Your task to perform on an android device: toggle javascript in the chrome app Image 0: 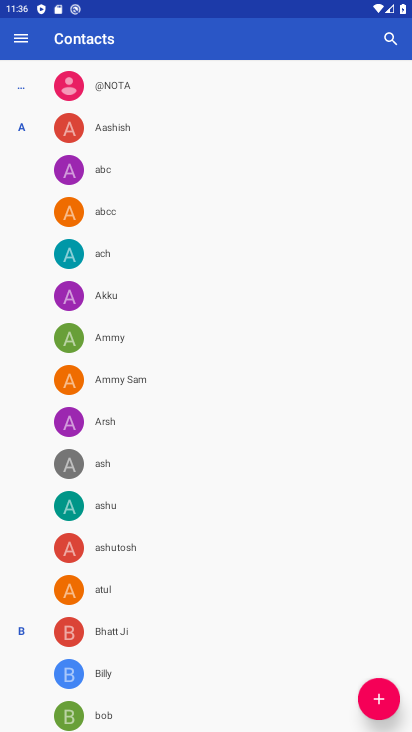
Step 0: press home button
Your task to perform on an android device: toggle javascript in the chrome app Image 1: 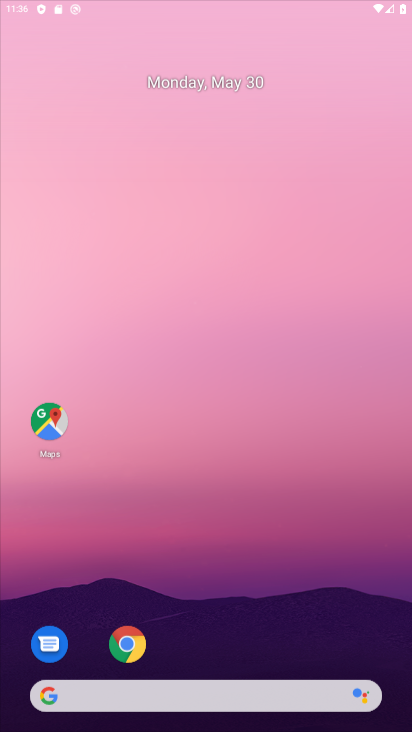
Step 1: drag from (177, 598) to (236, 155)
Your task to perform on an android device: toggle javascript in the chrome app Image 2: 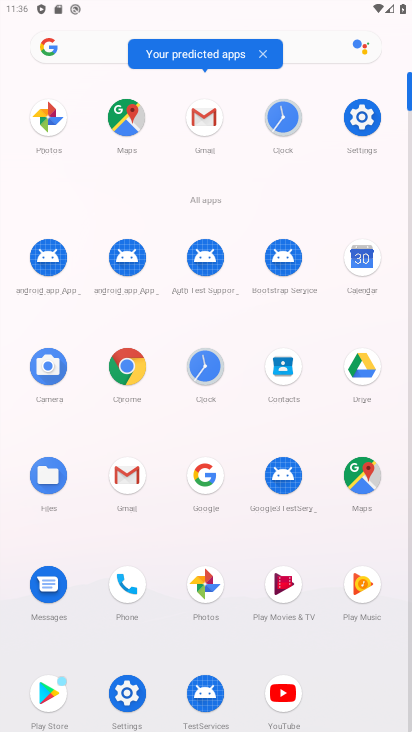
Step 2: drag from (231, 633) to (293, 218)
Your task to perform on an android device: toggle javascript in the chrome app Image 3: 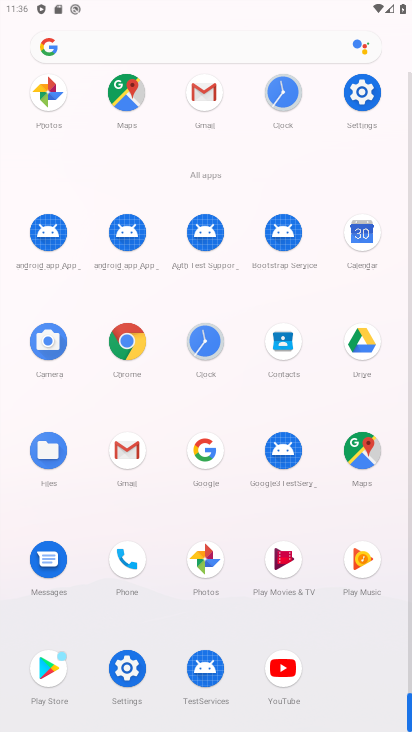
Step 3: click (130, 329)
Your task to perform on an android device: toggle javascript in the chrome app Image 4: 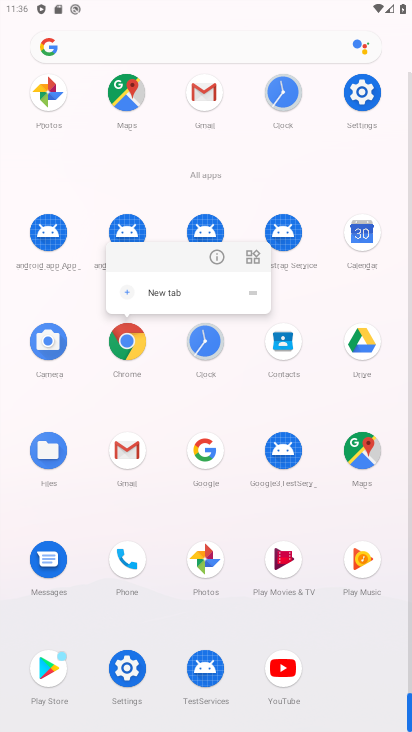
Step 4: click (216, 253)
Your task to perform on an android device: toggle javascript in the chrome app Image 5: 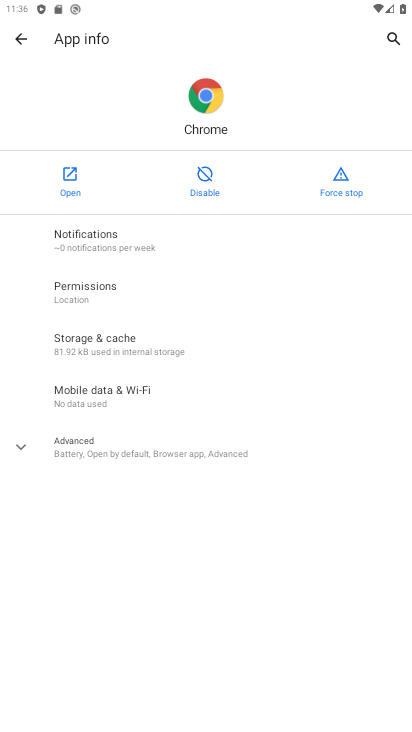
Step 5: click (68, 172)
Your task to perform on an android device: toggle javascript in the chrome app Image 6: 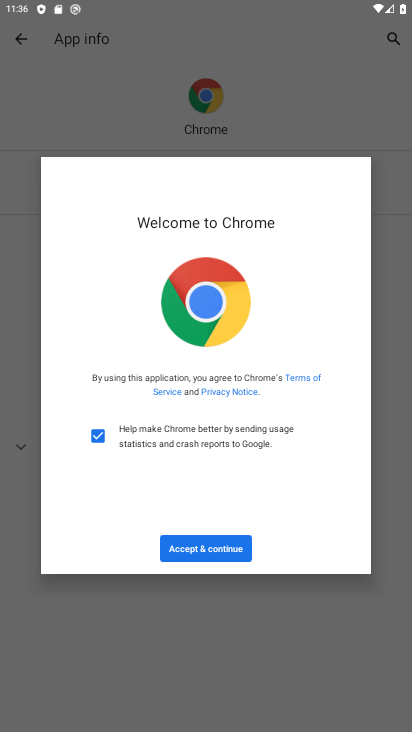
Step 6: click (197, 543)
Your task to perform on an android device: toggle javascript in the chrome app Image 7: 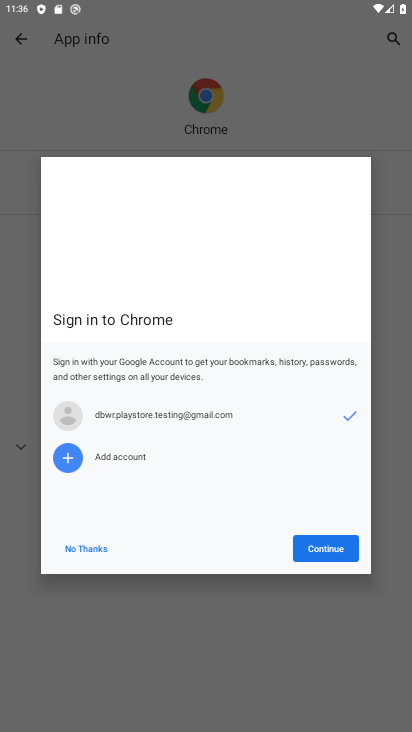
Step 7: click (323, 555)
Your task to perform on an android device: toggle javascript in the chrome app Image 8: 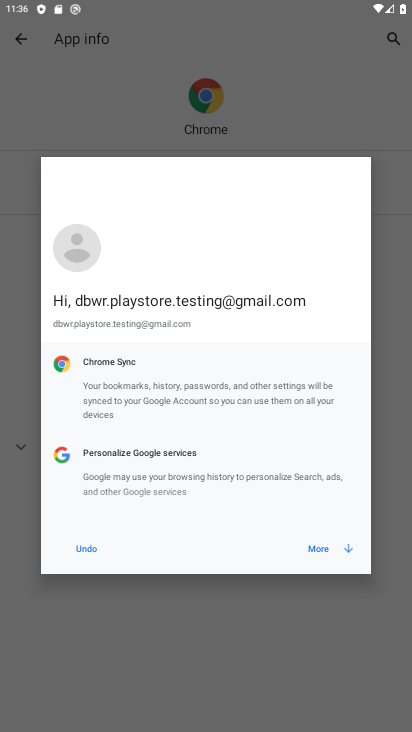
Step 8: click (319, 552)
Your task to perform on an android device: toggle javascript in the chrome app Image 9: 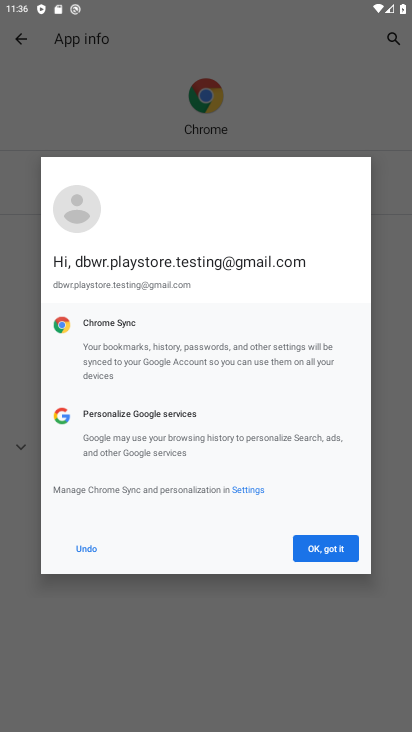
Step 9: click (319, 552)
Your task to perform on an android device: toggle javascript in the chrome app Image 10: 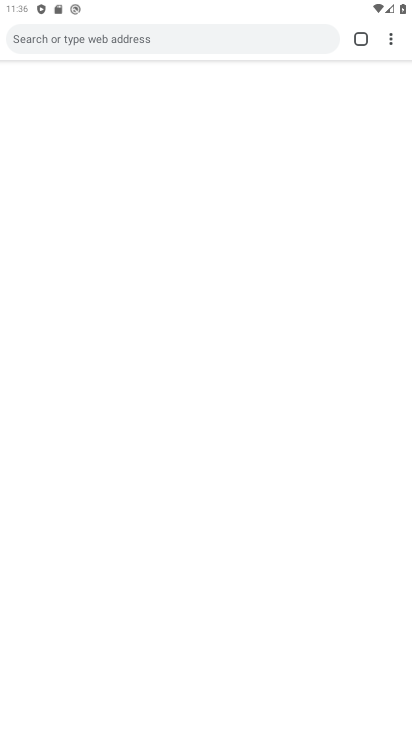
Step 10: drag from (258, 505) to (300, 290)
Your task to perform on an android device: toggle javascript in the chrome app Image 11: 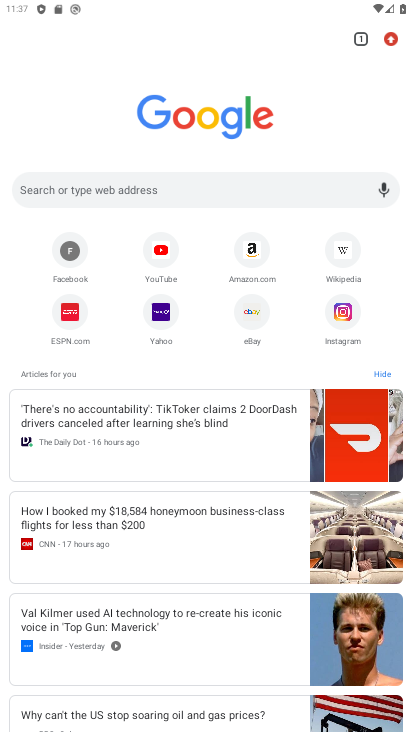
Step 11: click (385, 47)
Your task to perform on an android device: toggle javascript in the chrome app Image 12: 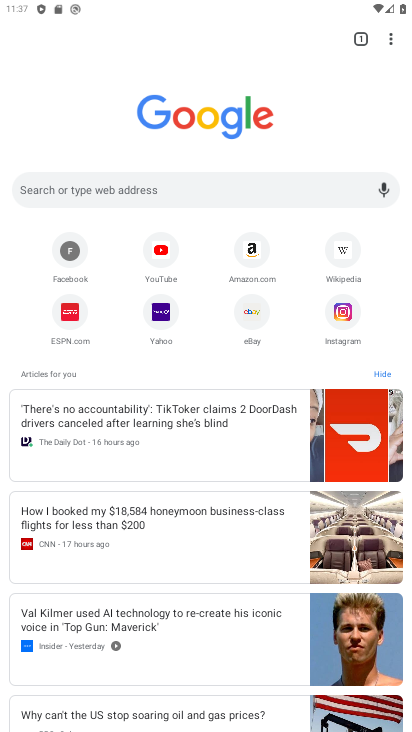
Step 12: drag from (403, 34) to (282, 368)
Your task to perform on an android device: toggle javascript in the chrome app Image 13: 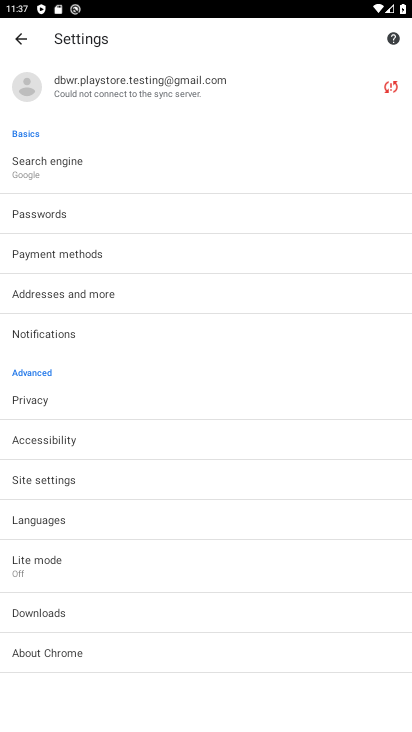
Step 13: drag from (186, 637) to (307, 179)
Your task to perform on an android device: toggle javascript in the chrome app Image 14: 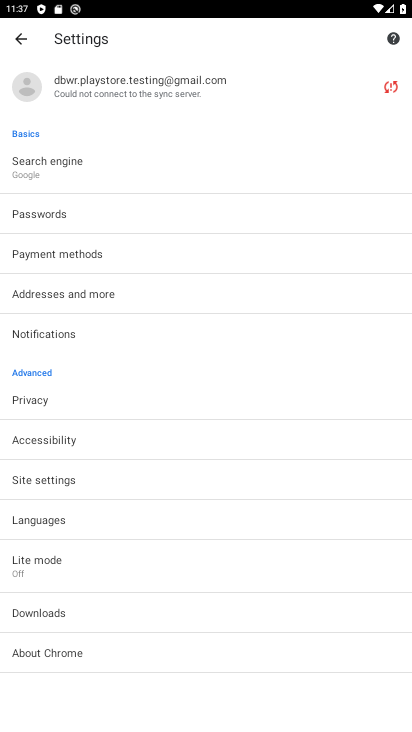
Step 14: click (75, 478)
Your task to perform on an android device: toggle javascript in the chrome app Image 15: 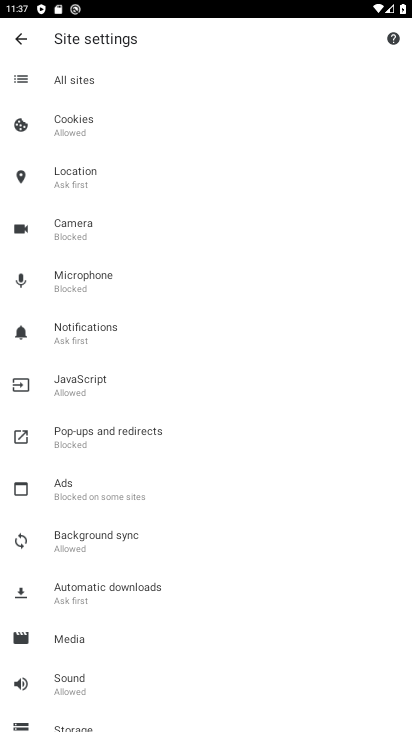
Step 15: click (117, 384)
Your task to perform on an android device: toggle javascript in the chrome app Image 16: 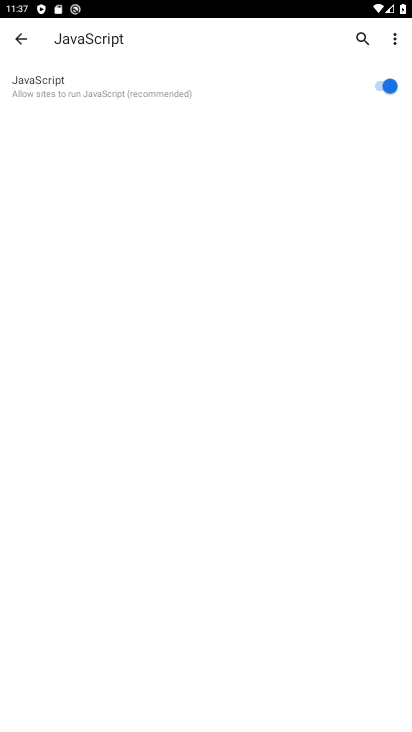
Step 16: click (389, 80)
Your task to perform on an android device: toggle javascript in the chrome app Image 17: 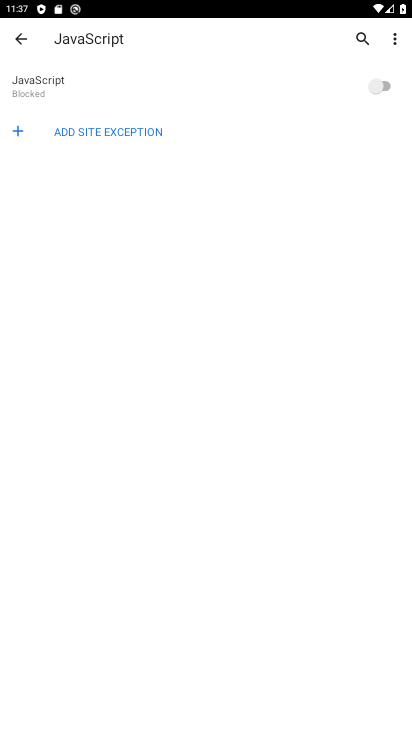
Step 17: task complete